Your task to perform on an android device: Add razer blade to the cart on amazon.com, then select checkout. Image 0: 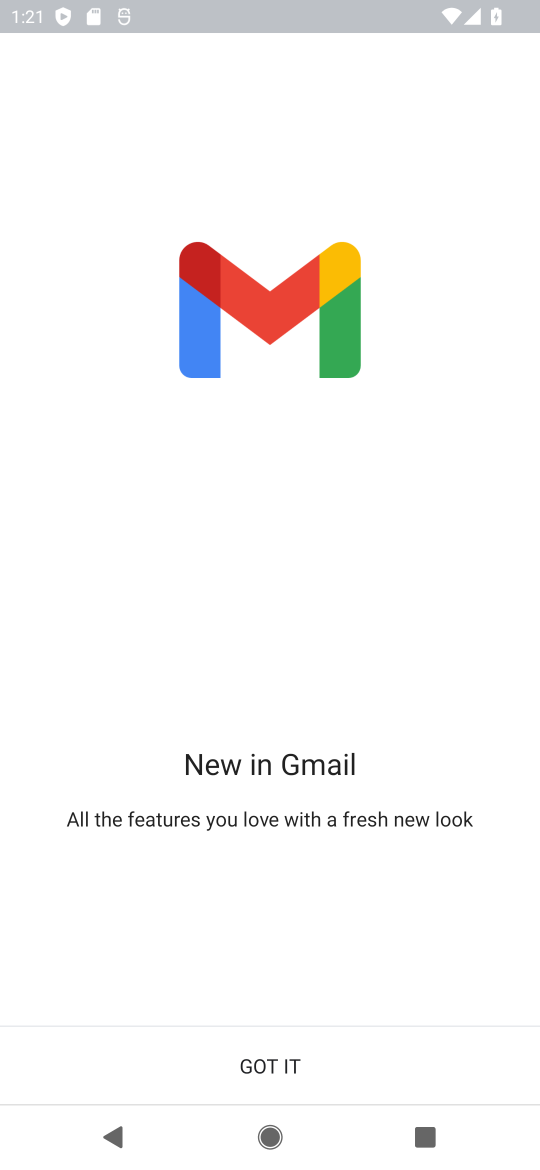
Step 0: press home button
Your task to perform on an android device: Add razer blade to the cart on amazon.com, then select checkout. Image 1: 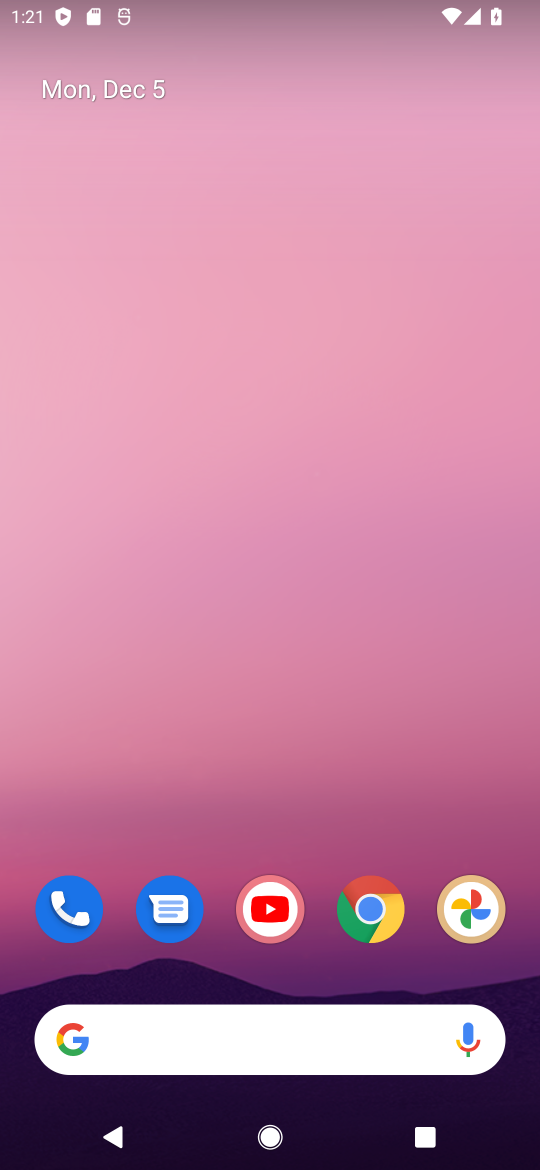
Step 1: drag from (281, 1031) to (286, 286)
Your task to perform on an android device: Add razer blade to the cart on amazon.com, then select checkout. Image 2: 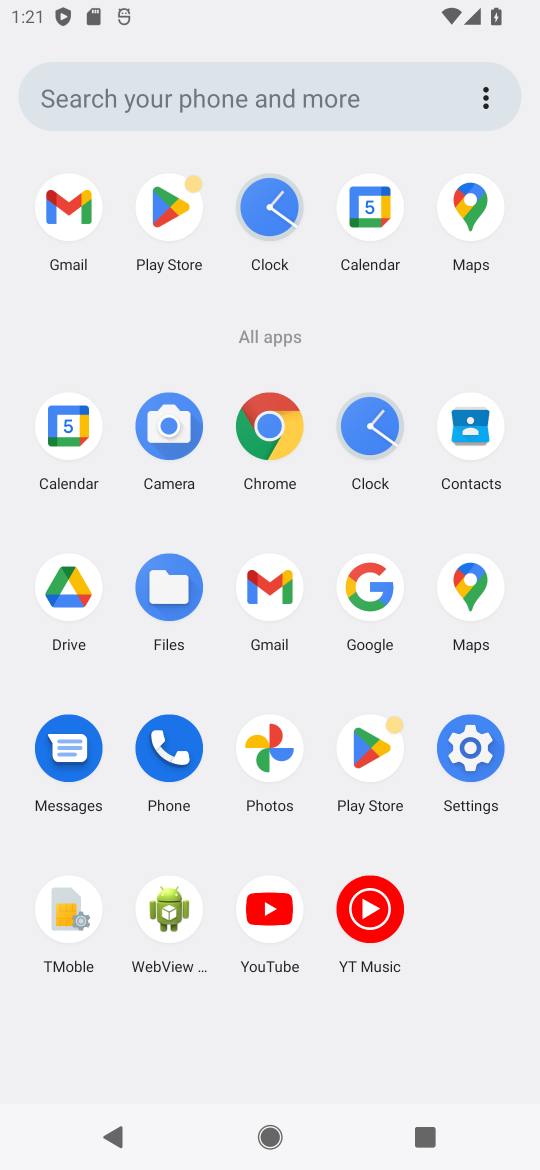
Step 2: click (381, 582)
Your task to perform on an android device: Add razer blade to the cart on amazon.com, then select checkout. Image 3: 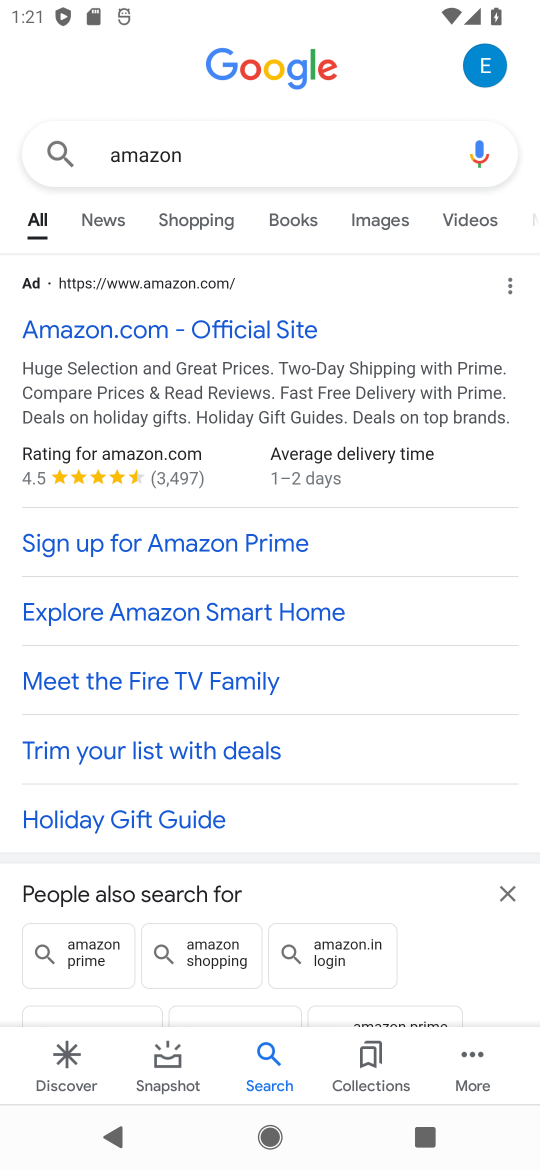
Step 3: click (150, 333)
Your task to perform on an android device: Add razer blade to the cart on amazon.com, then select checkout. Image 4: 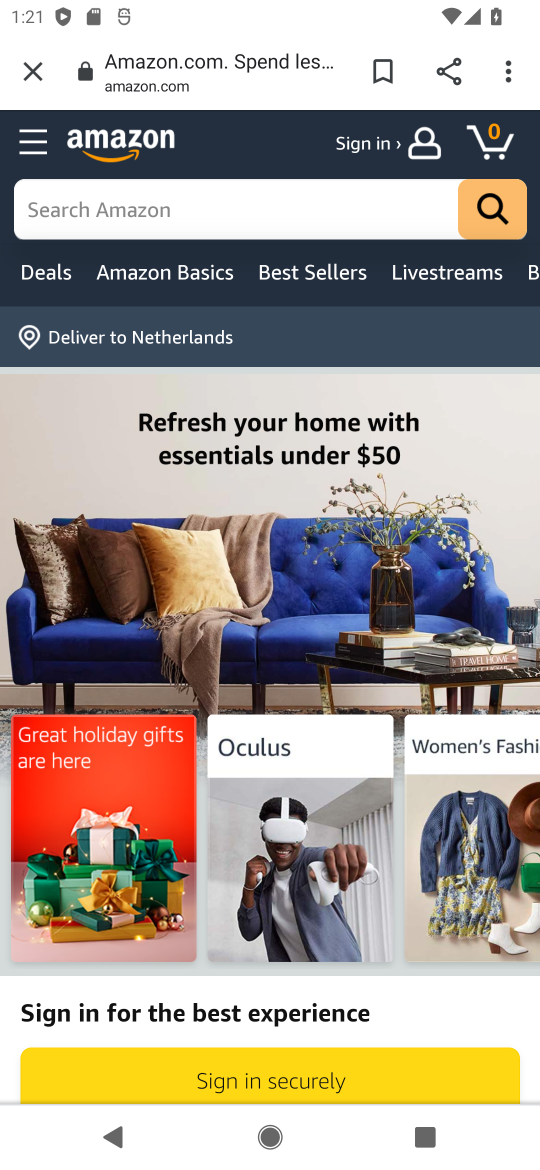
Step 4: click (55, 210)
Your task to perform on an android device: Add razer blade to the cart on amazon.com, then select checkout. Image 5: 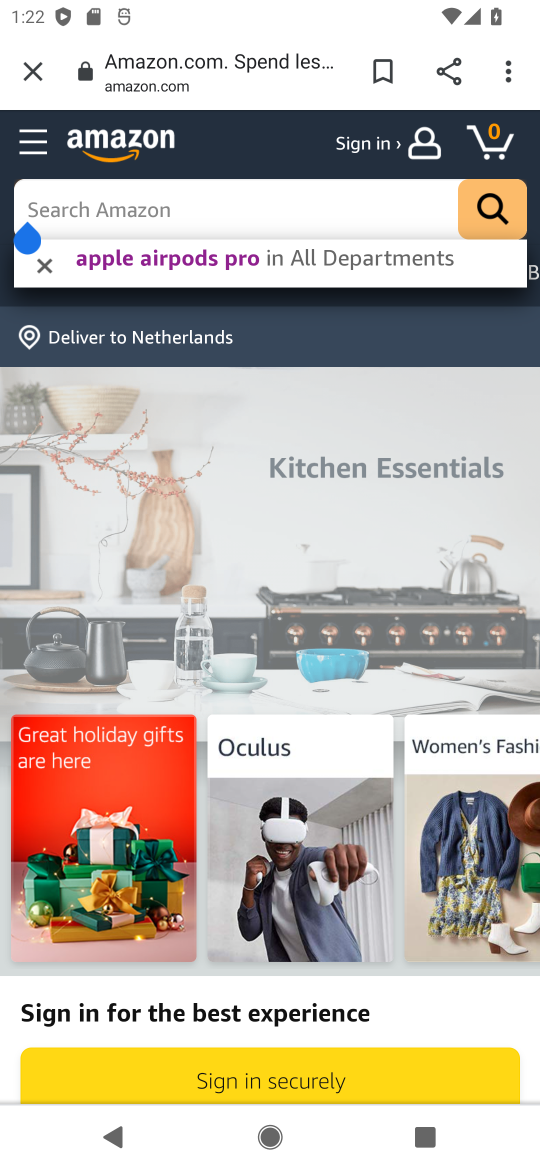
Step 5: type "razer blade"
Your task to perform on an android device: Add razer blade to the cart on amazon.com, then select checkout. Image 6: 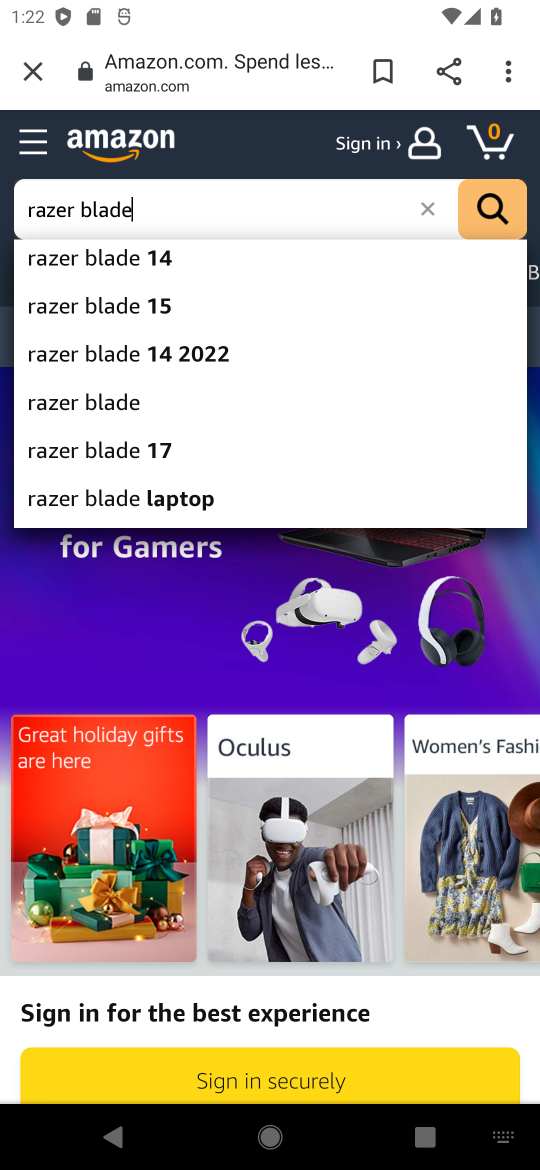
Step 6: click (68, 261)
Your task to perform on an android device: Add razer blade to the cart on amazon.com, then select checkout. Image 7: 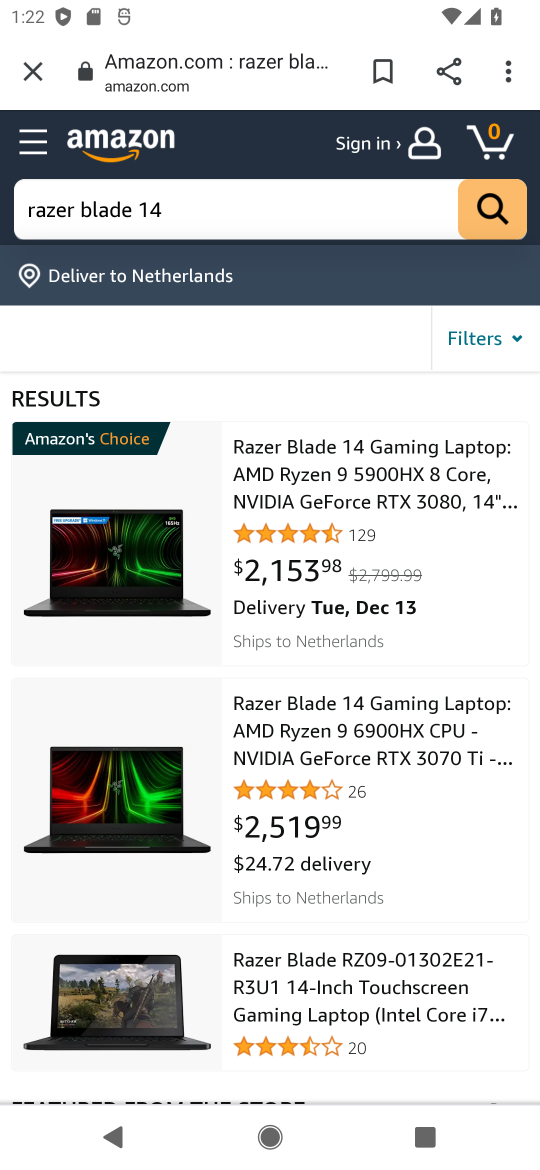
Step 7: click (301, 491)
Your task to perform on an android device: Add razer blade to the cart on amazon.com, then select checkout. Image 8: 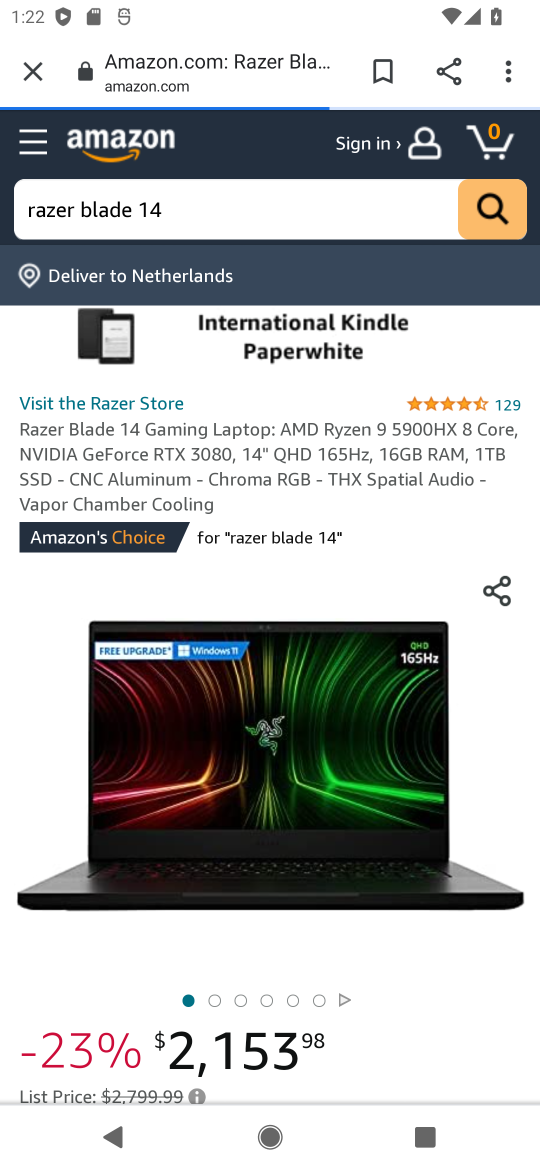
Step 8: drag from (314, 902) to (268, 322)
Your task to perform on an android device: Add razer blade to the cart on amazon.com, then select checkout. Image 9: 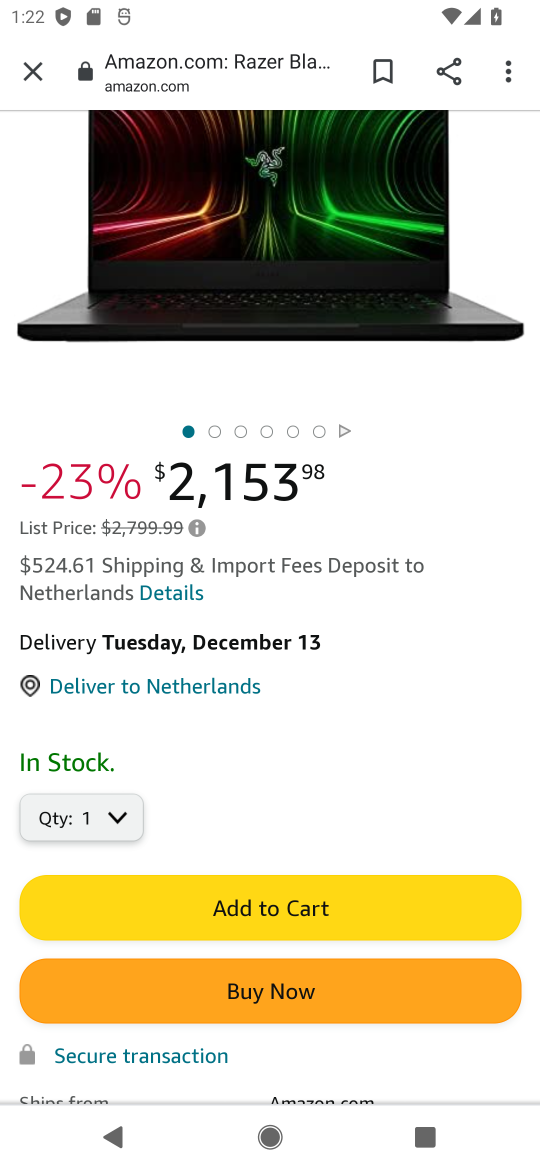
Step 9: click (288, 893)
Your task to perform on an android device: Add razer blade to the cart on amazon.com, then select checkout. Image 10: 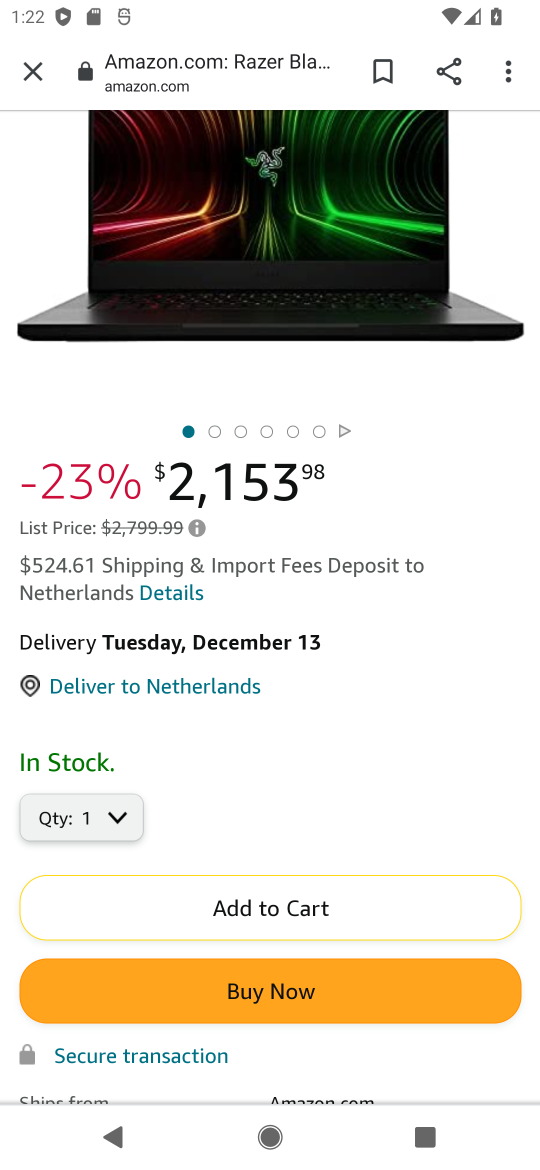
Step 10: click (272, 900)
Your task to perform on an android device: Add razer blade to the cart on amazon.com, then select checkout. Image 11: 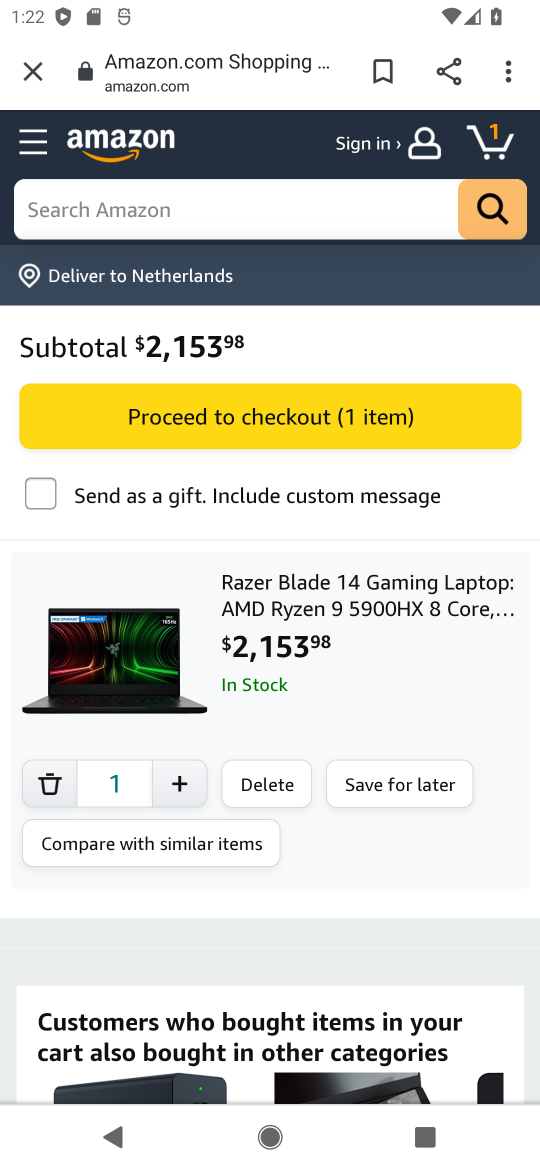
Step 11: click (493, 132)
Your task to perform on an android device: Add razer blade to the cart on amazon.com, then select checkout. Image 12: 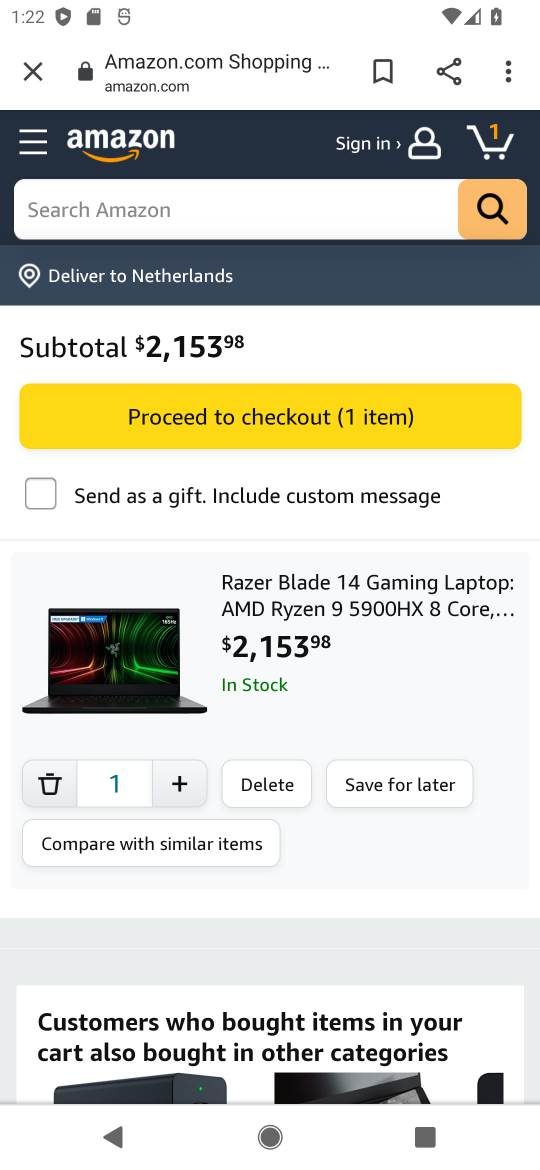
Step 12: click (291, 410)
Your task to perform on an android device: Add razer blade to the cart on amazon.com, then select checkout. Image 13: 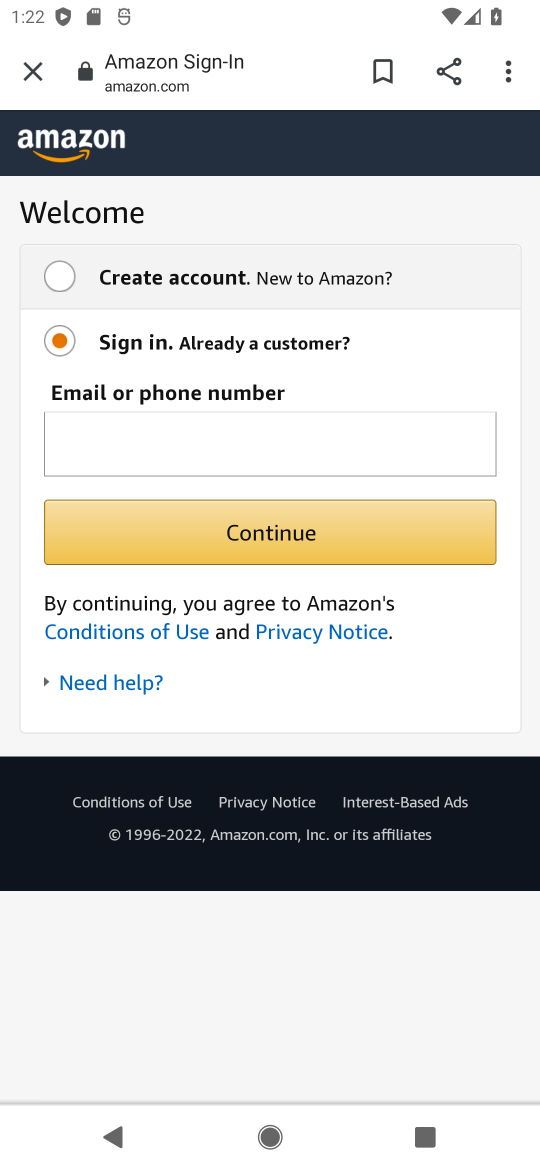
Step 13: task complete